Your task to perform on an android device: open app "Speedtest by Ookla" (install if not already installed), go to login, and select forgot password Image 0: 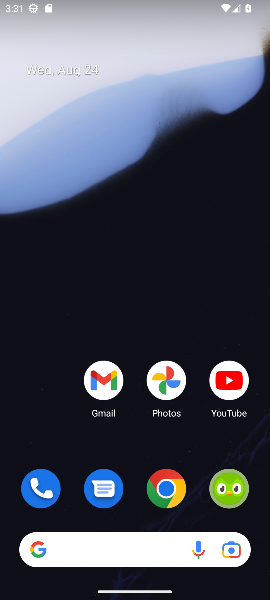
Step 0: drag from (122, 464) to (169, 20)
Your task to perform on an android device: open app "Speedtest by Ookla" (install if not already installed), go to login, and select forgot password Image 1: 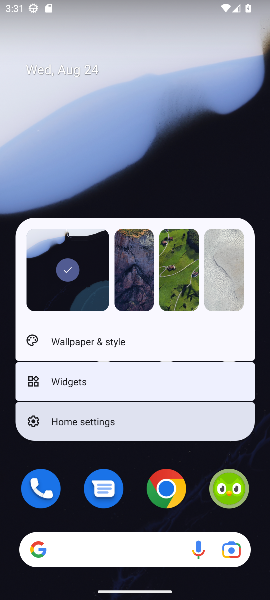
Step 1: click (166, 103)
Your task to perform on an android device: open app "Speedtest by Ookla" (install if not already installed), go to login, and select forgot password Image 2: 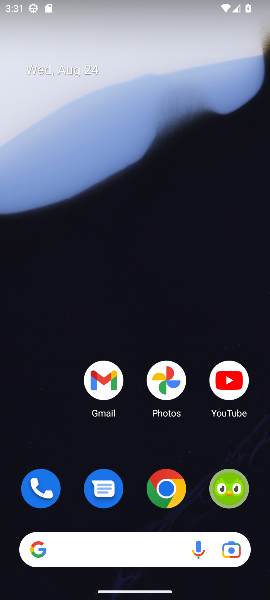
Step 2: drag from (132, 460) to (144, 110)
Your task to perform on an android device: open app "Speedtest by Ookla" (install if not already installed), go to login, and select forgot password Image 3: 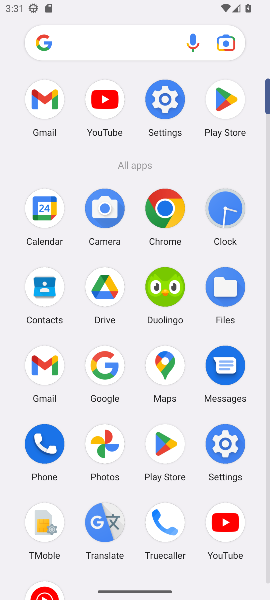
Step 3: click (214, 100)
Your task to perform on an android device: open app "Speedtest by Ookla" (install if not already installed), go to login, and select forgot password Image 4: 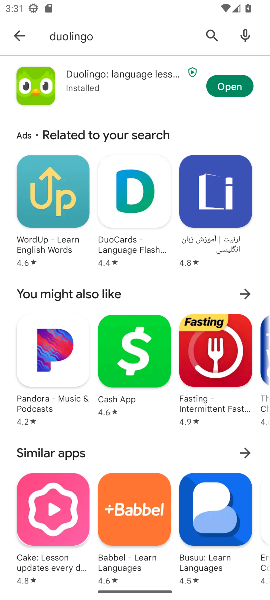
Step 4: click (216, 38)
Your task to perform on an android device: open app "Speedtest by Ookla" (install if not already installed), go to login, and select forgot password Image 5: 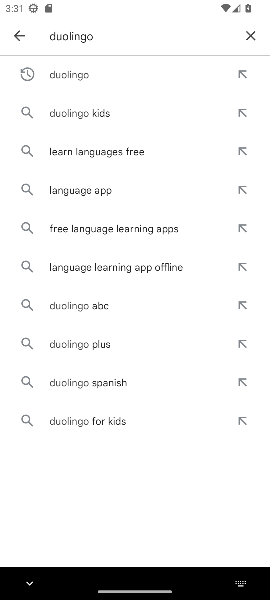
Step 5: click (241, 38)
Your task to perform on an android device: open app "Speedtest by Ookla" (install if not already installed), go to login, and select forgot password Image 6: 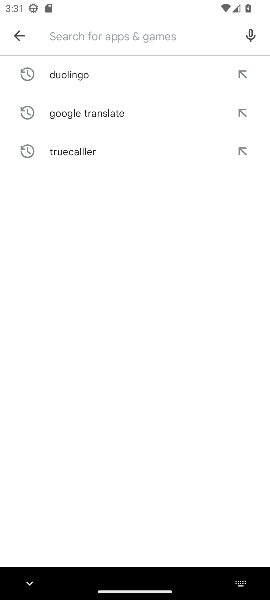
Step 6: type "speedtest"
Your task to perform on an android device: open app "Speedtest by Ookla" (install if not already installed), go to login, and select forgot password Image 7: 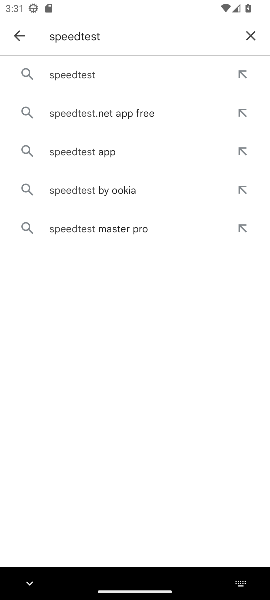
Step 7: click (103, 198)
Your task to perform on an android device: open app "Speedtest by Ookla" (install if not already installed), go to login, and select forgot password Image 8: 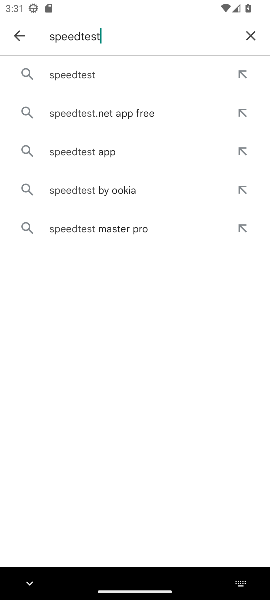
Step 8: click (103, 198)
Your task to perform on an android device: open app "Speedtest by Ookla" (install if not already installed), go to login, and select forgot password Image 9: 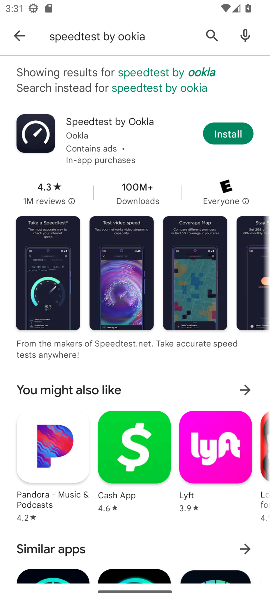
Step 9: click (218, 138)
Your task to perform on an android device: open app "Speedtest by Ookla" (install if not already installed), go to login, and select forgot password Image 10: 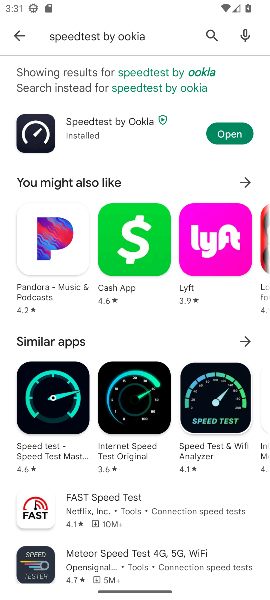
Step 10: click (215, 134)
Your task to perform on an android device: open app "Speedtest by Ookla" (install if not already installed), go to login, and select forgot password Image 11: 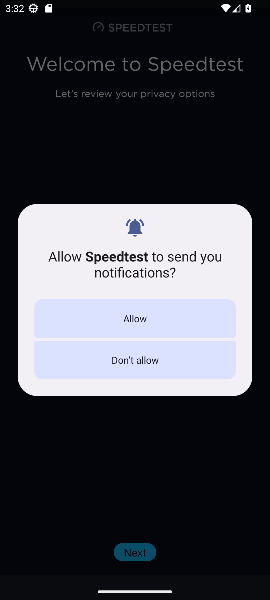
Step 11: click (189, 315)
Your task to perform on an android device: open app "Speedtest by Ookla" (install if not already installed), go to login, and select forgot password Image 12: 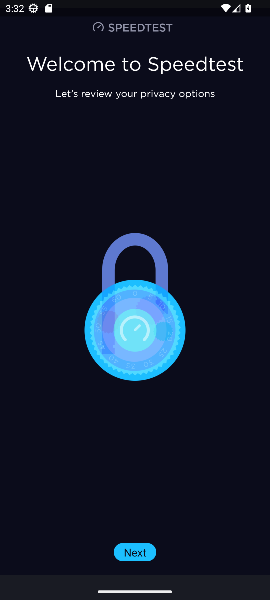
Step 12: click (134, 555)
Your task to perform on an android device: open app "Speedtest by Ookla" (install if not already installed), go to login, and select forgot password Image 13: 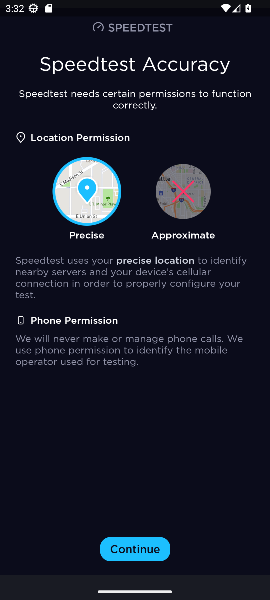
Step 13: click (134, 555)
Your task to perform on an android device: open app "Speedtest by Ookla" (install if not already installed), go to login, and select forgot password Image 14: 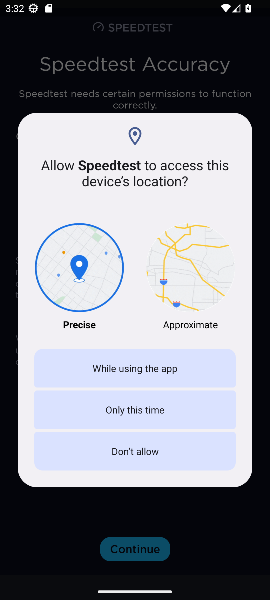
Step 14: click (124, 371)
Your task to perform on an android device: open app "Speedtest by Ookla" (install if not already installed), go to login, and select forgot password Image 15: 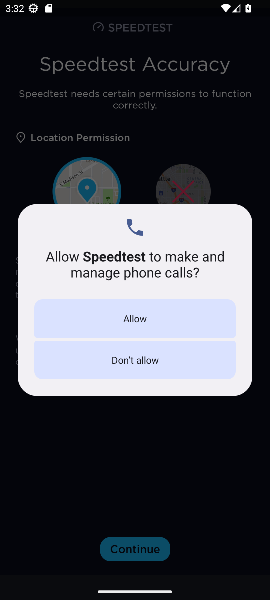
Step 15: click (141, 310)
Your task to perform on an android device: open app "Speedtest by Ookla" (install if not already installed), go to login, and select forgot password Image 16: 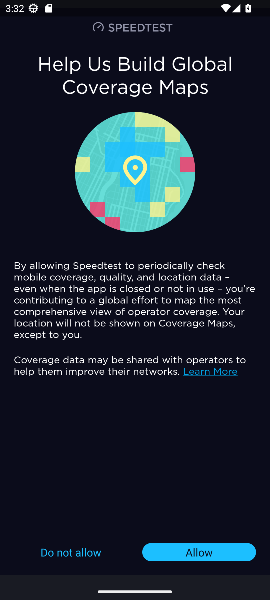
Step 16: task complete